Your task to perform on an android device: turn notification dots off Image 0: 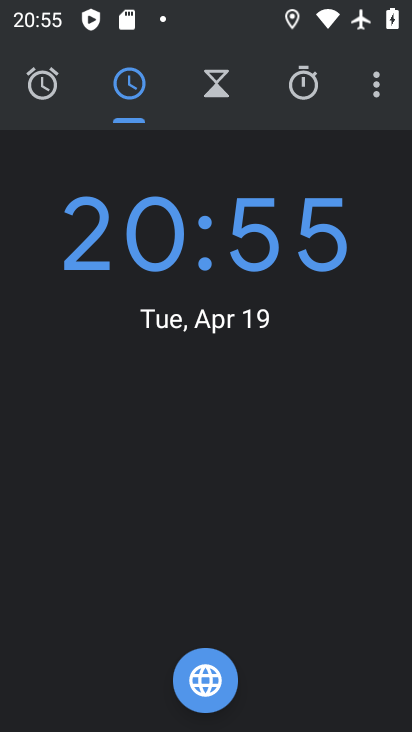
Step 0: press home button
Your task to perform on an android device: turn notification dots off Image 1: 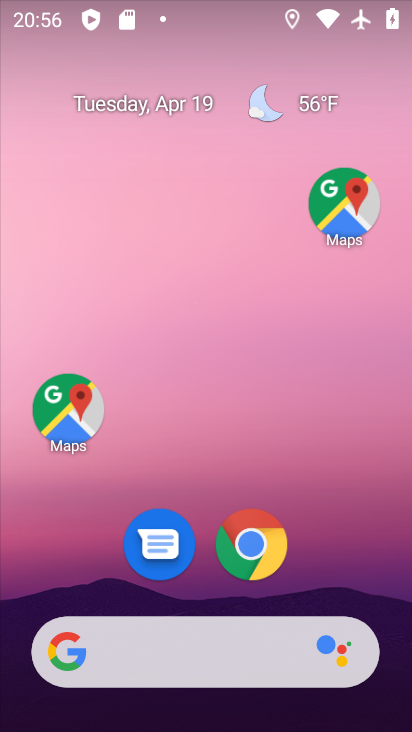
Step 1: drag from (188, 645) to (319, 42)
Your task to perform on an android device: turn notification dots off Image 2: 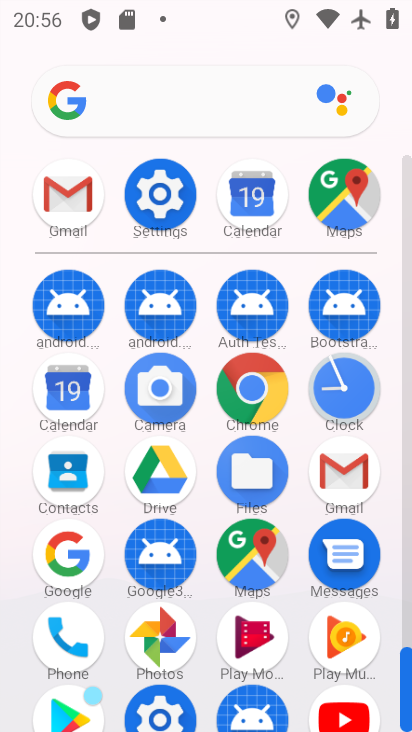
Step 2: click (159, 208)
Your task to perform on an android device: turn notification dots off Image 3: 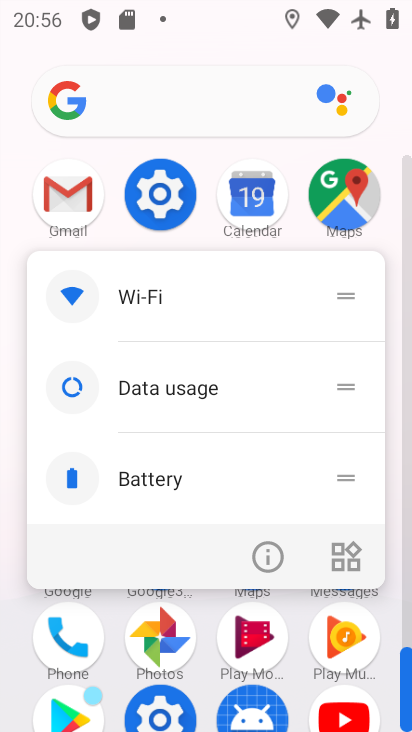
Step 3: click (159, 198)
Your task to perform on an android device: turn notification dots off Image 4: 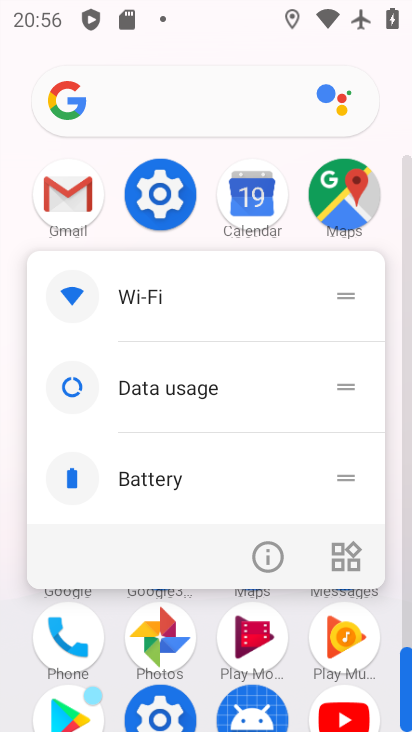
Step 4: click (163, 197)
Your task to perform on an android device: turn notification dots off Image 5: 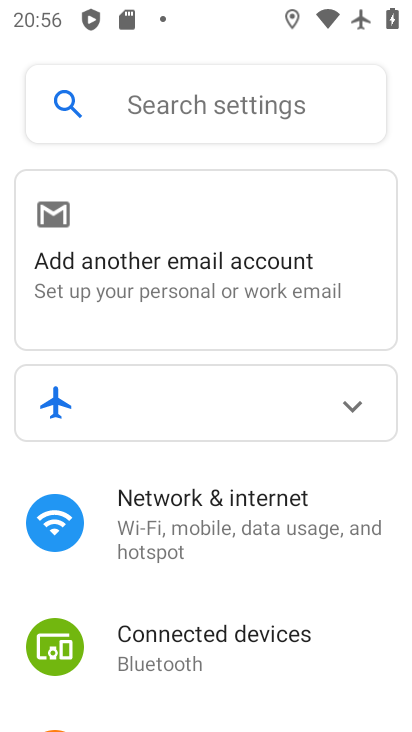
Step 5: drag from (227, 658) to (329, 135)
Your task to perform on an android device: turn notification dots off Image 6: 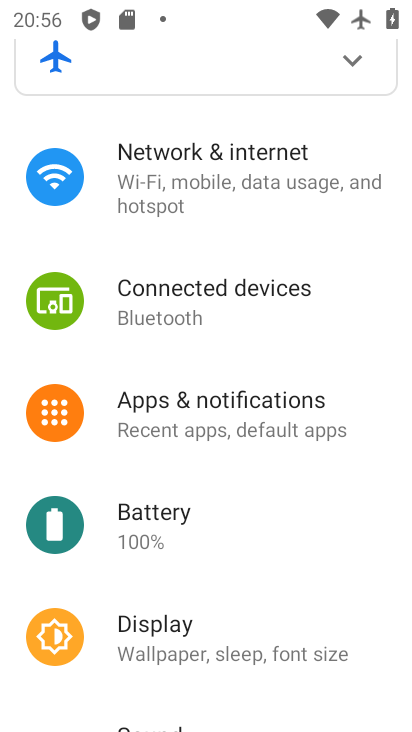
Step 6: click (249, 418)
Your task to perform on an android device: turn notification dots off Image 7: 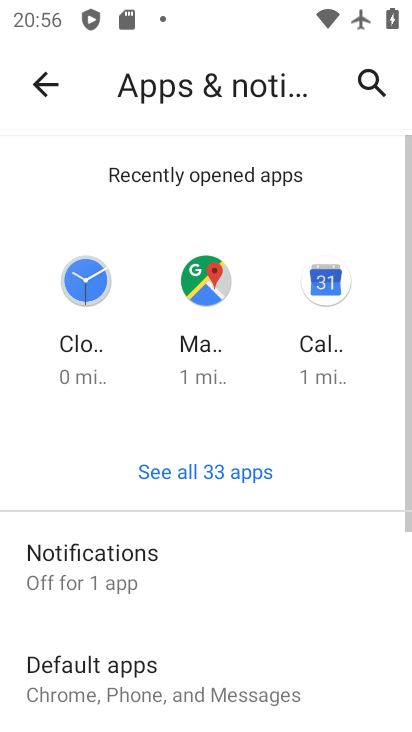
Step 7: click (117, 565)
Your task to perform on an android device: turn notification dots off Image 8: 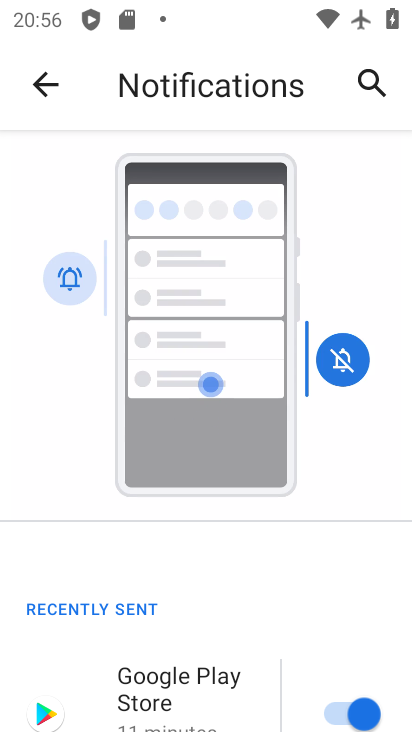
Step 8: drag from (202, 662) to (370, 40)
Your task to perform on an android device: turn notification dots off Image 9: 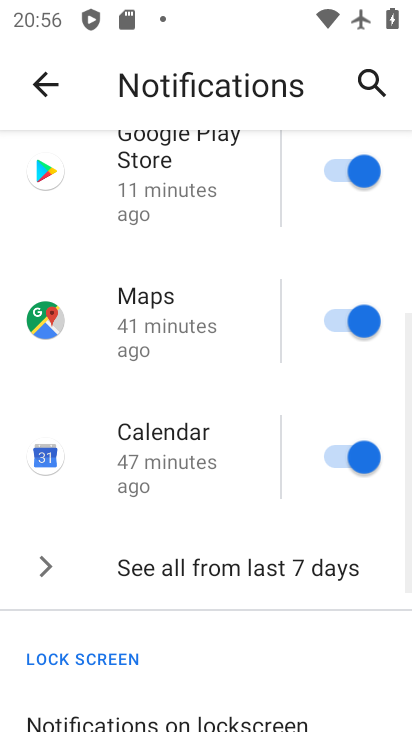
Step 9: drag from (258, 515) to (359, 147)
Your task to perform on an android device: turn notification dots off Image 10: 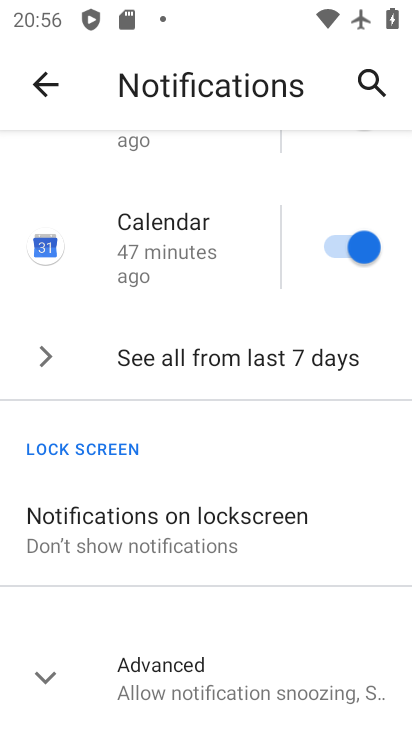
Step 10: click (169, 676)
Your task to perform on an android device: turn notification dots off Image 11: 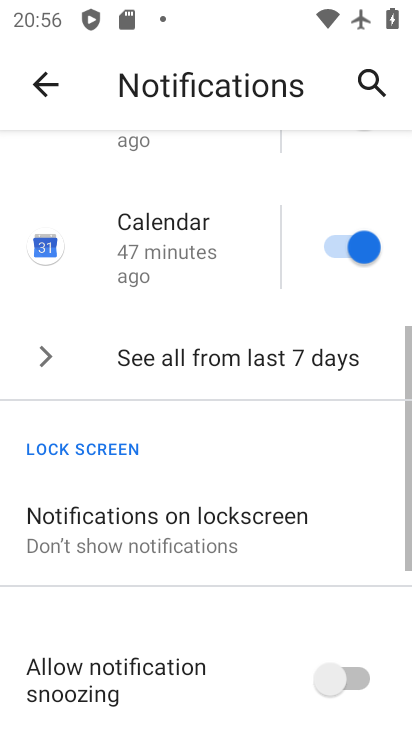
Step 11: drag from (170, 674) to (355, 33)
Your task to perform on an android device: turn notification dots off Image 12: 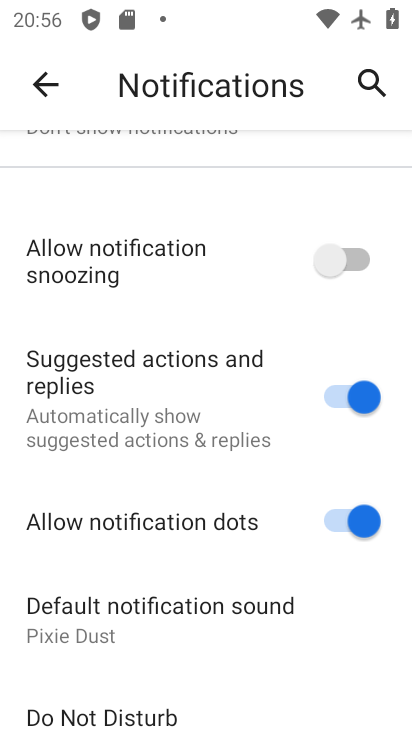
Step 12: click (337, 515)
Your task to perform on an android device: turn notification dots off Image 13: 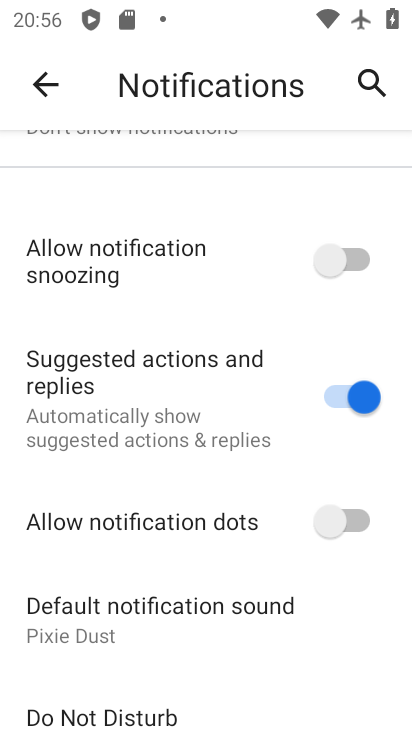
Step 13: task complete